Your task to perform on an android device: Open CNN.com Image 0: 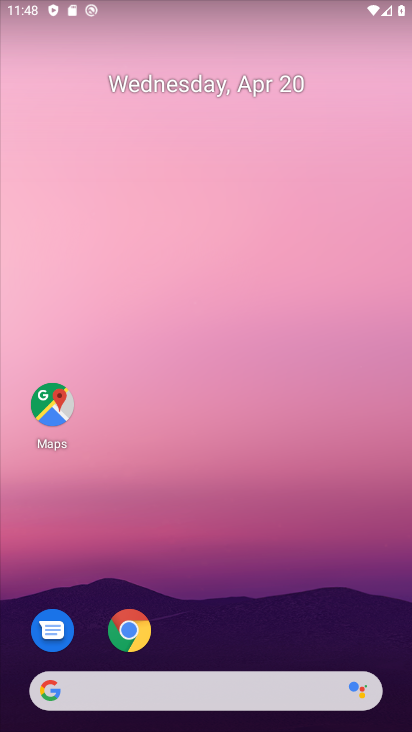
Step 0: press home button
Your task to perform on an android device: Open CNN.com Image 1: 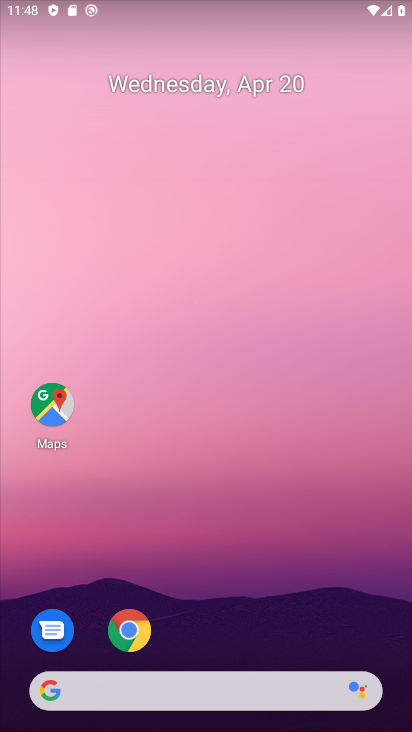
Step 1: drag from (196, 686) to (362, 112)
Your task to perform on an android device: Open CNN.com Image 2: 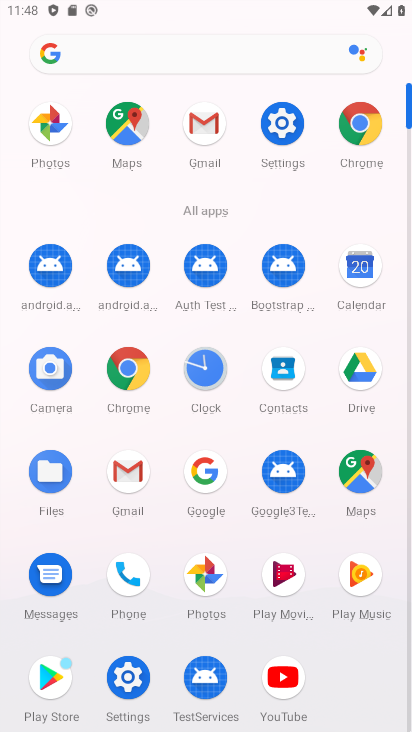
Step 2: click (368, 127)
Your task to perform on an android device: Open CNN.com Image 3: 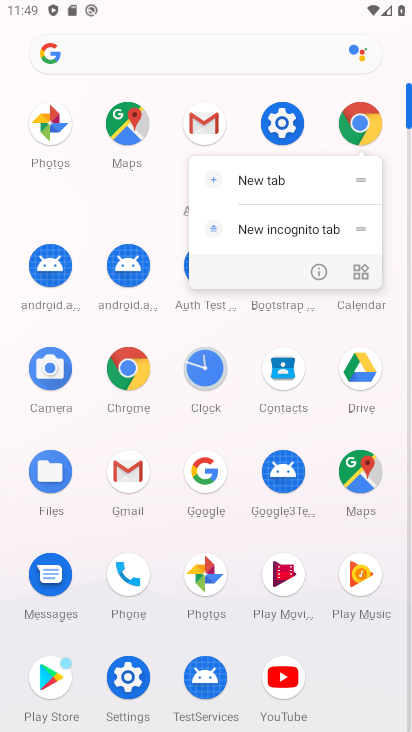
Step 3: click (360, 129)
Your task to perform on an android device: Open CNN.com Image 4: 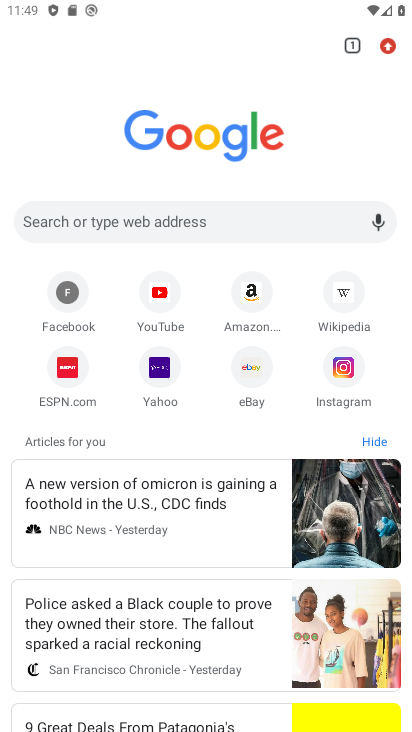
Step 4: click (35, 218)
Your task to perform on an android device: Open CNN.com Image 5: 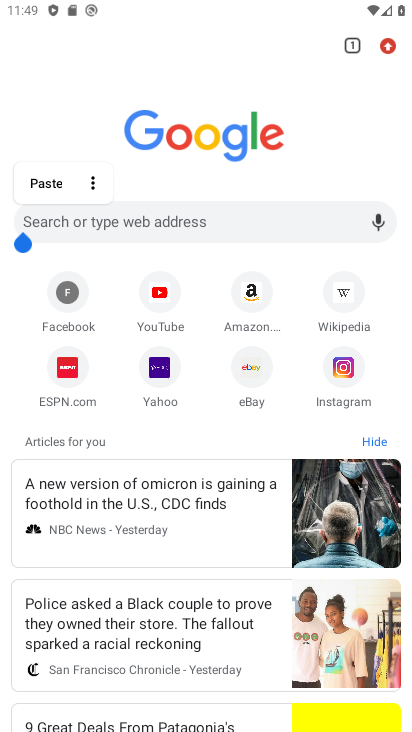
Step 5: click (145, 219)
Your task to perform on an android device: Open CNN.com Image 6: 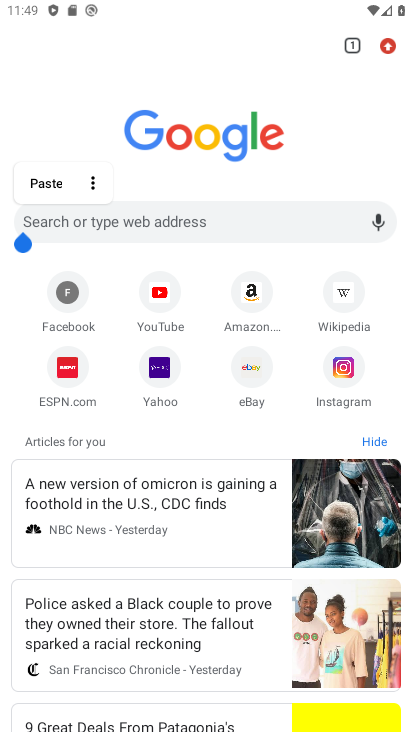
Step 6: click (113, 213)
Your task to perform on an android device: Open CNN.com Image 7: 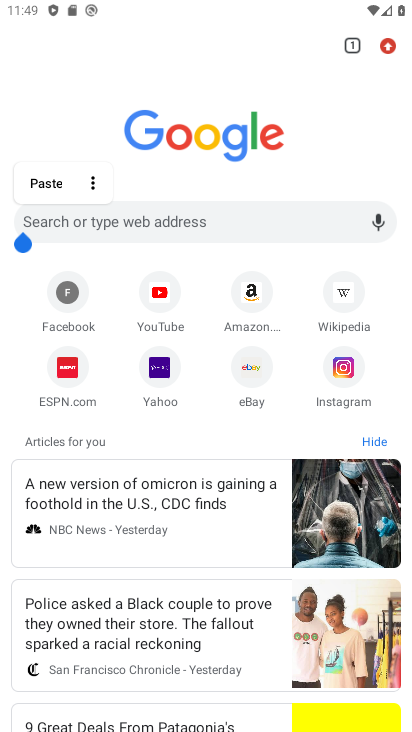
Step 7: click (37, 224)
Your task to perform on an android device: Open CNN.com Image 8: 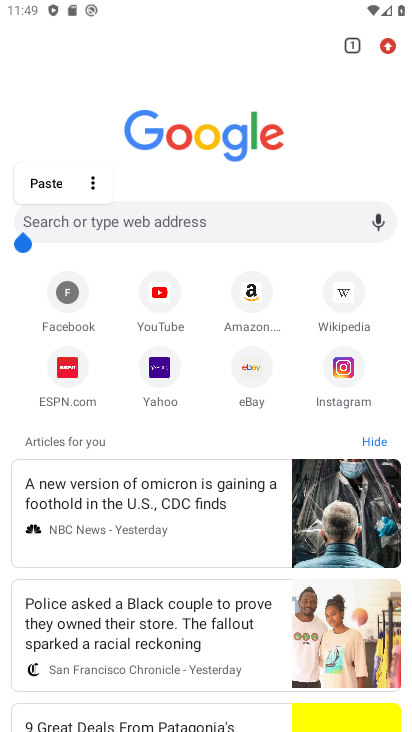
Step 8: click (245, 225)
Your task to perform on an android device: Open CNN.com Image 9: 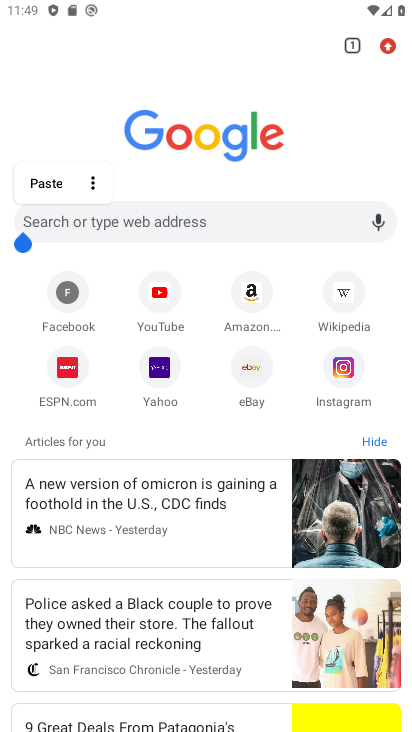
Step 9: click (88, 217)
Your task to perform on an android device: Open CNN.com Image 10: 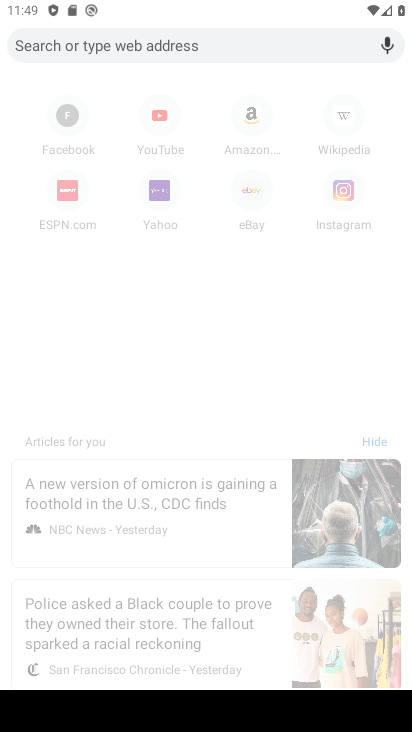
Step 10: type "cnn.com"
Your task to perform on an android device: Open CNN.com Image 11: 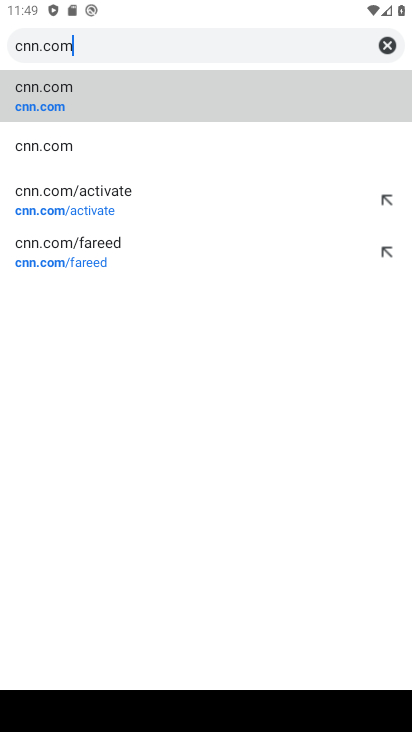
Step 11: click (74, 98)
Your task to perform on an android device: Open CNN.com Image 12: 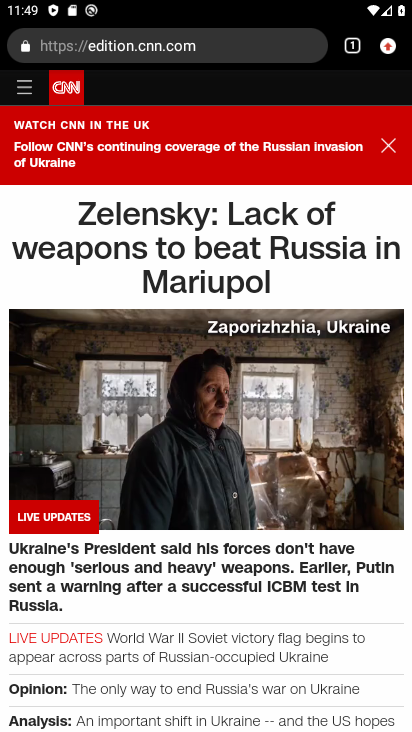
Step 12: task complete